Your task to perform on an android device: open device folders in google photos Image 0: 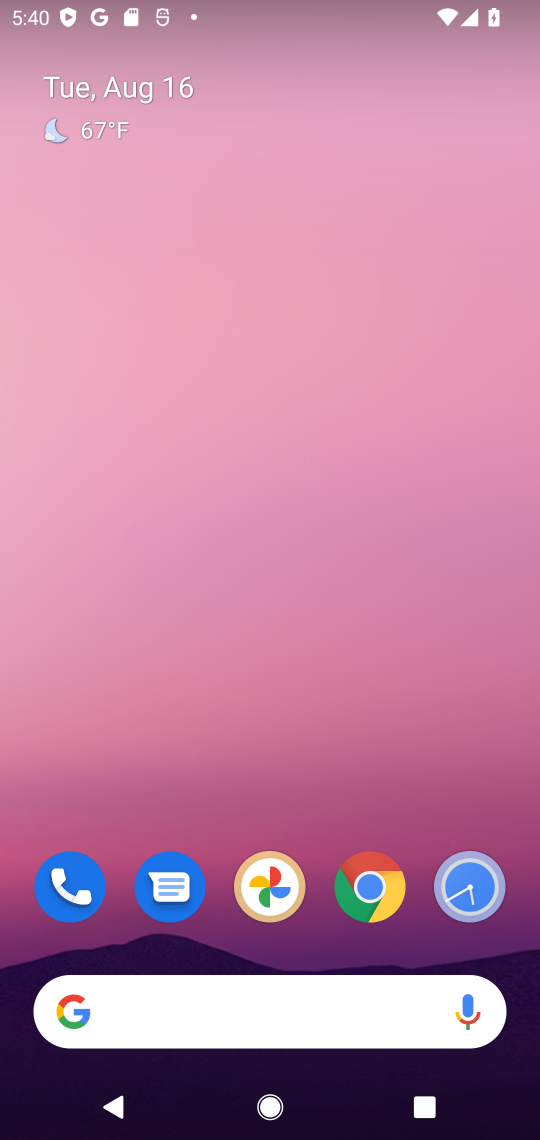
Step 0: drag from (318, 804) to (367, 85)
Your task to perform on an android device: open device folders in google photos Image 1: 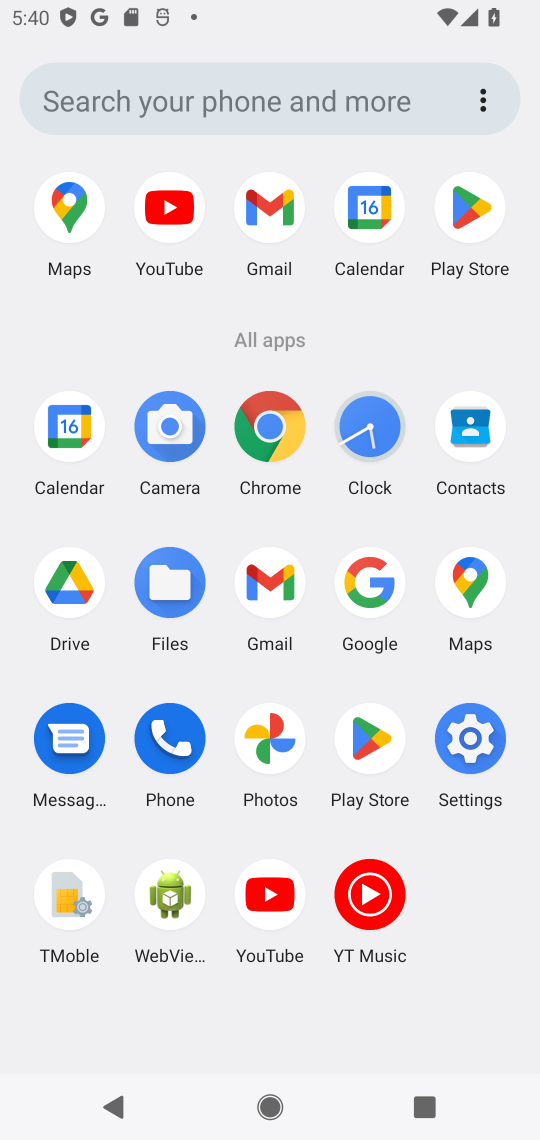
Step 1: click (263, 748)
Your task to perform on an android device: open device folders in google photos Image 2: 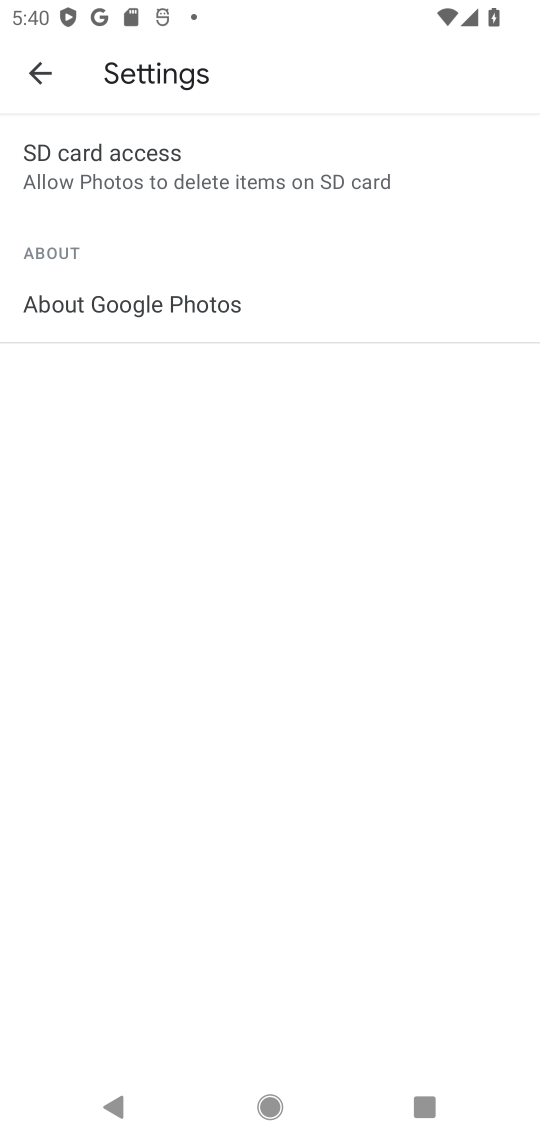
Step 2: click (41, 77)
Your task to perform on an android device: open device folders in google photos Image 3: 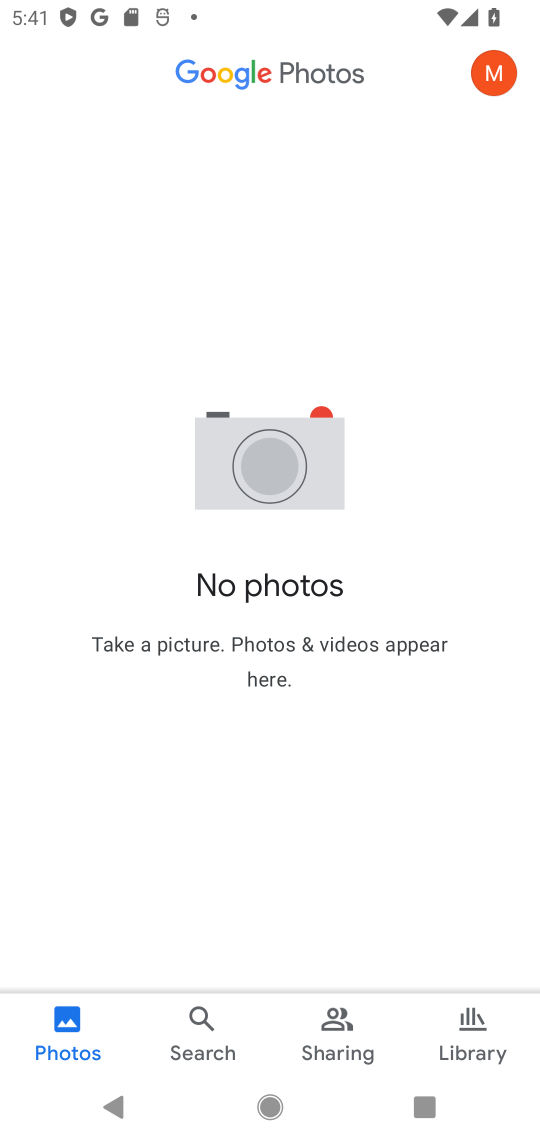
Step 3: click (477, 1025)
Your task to perform on an android device: open device folders in google photos Image 4: 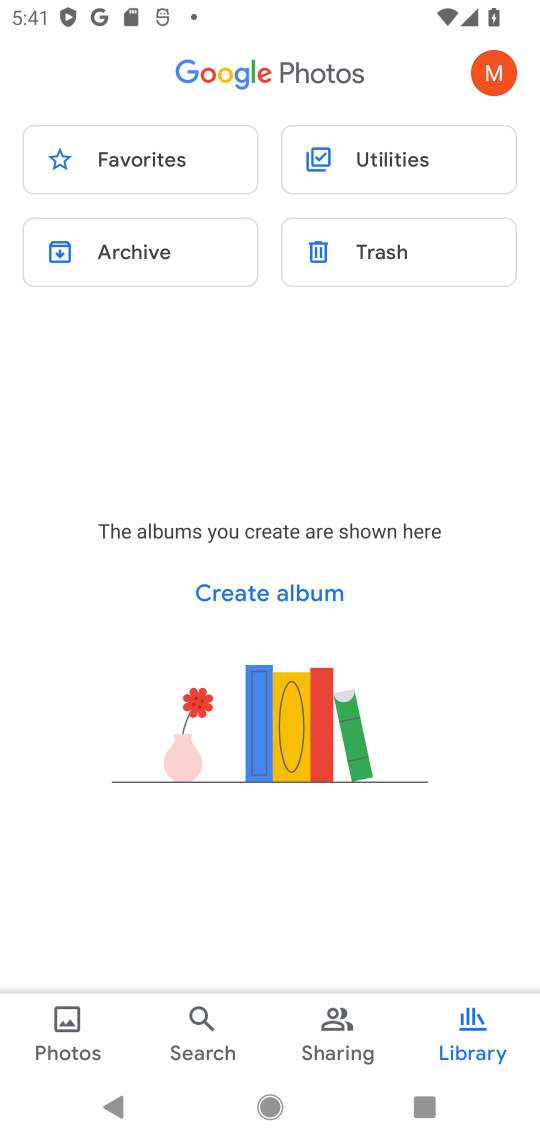
Step 4: click (338, 166)
Your task to perform on an android device: open device folders in google photos Image 5: 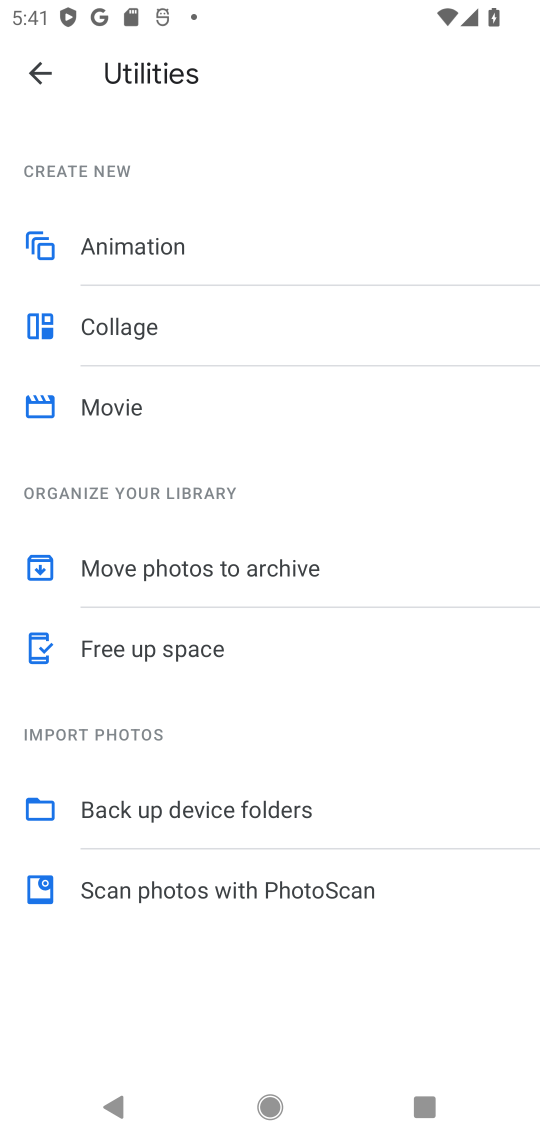
Step 5: click (213, 824)
Your task to perform on an android device: open device folders in google photos Image 6: 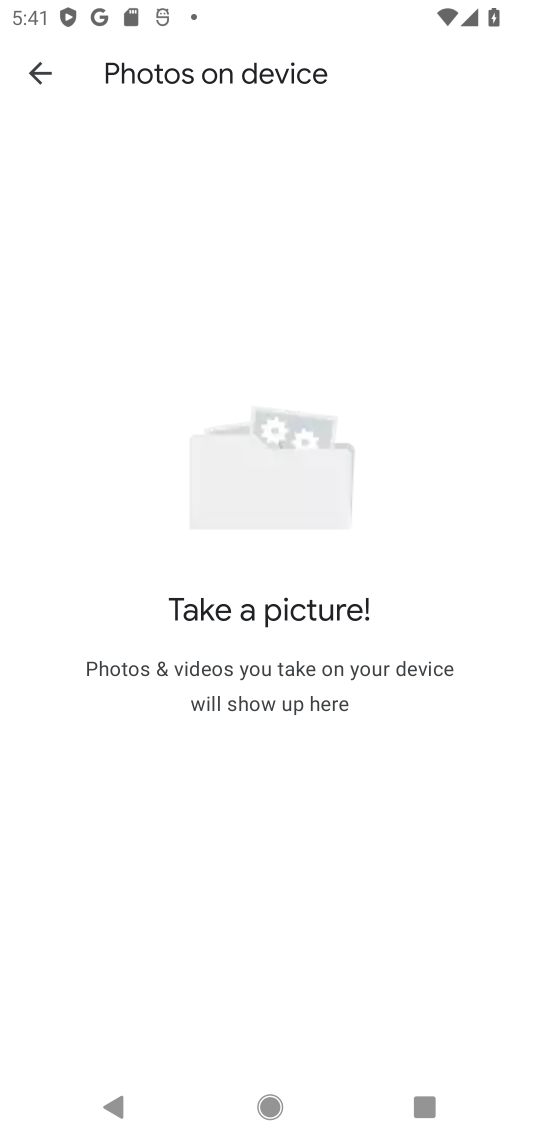
Step 6: task complete